Your task to perform on an android device: Open ESPN.com Image 0: 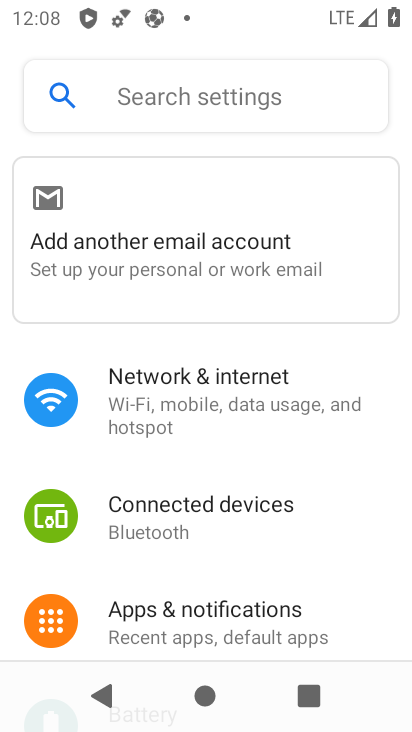
Step 0: press home button
Your task to perform on an android device: Open ESPN.com Image 1: 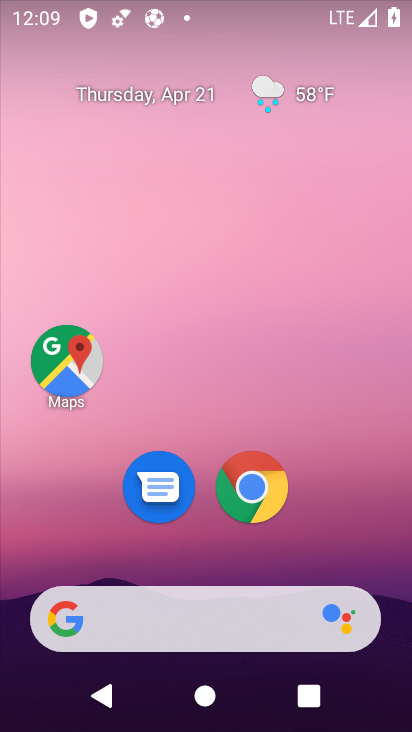
Step 1: click (261, 493)
Your task to perform on an android device: Open ESPN.com Image 2: 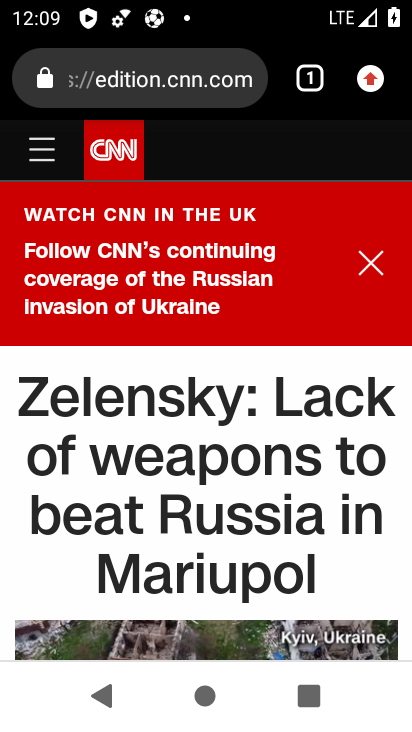
Step 2: click (206, 82)
Your task to perform on an android device: Open ESPN.com Image 3: 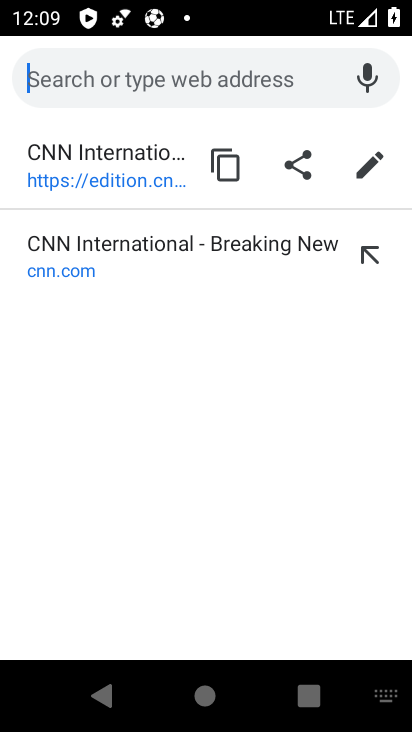
Step 3: type "espn.com"
Your task to perform on an android device: Open ESPN.com Image 4: 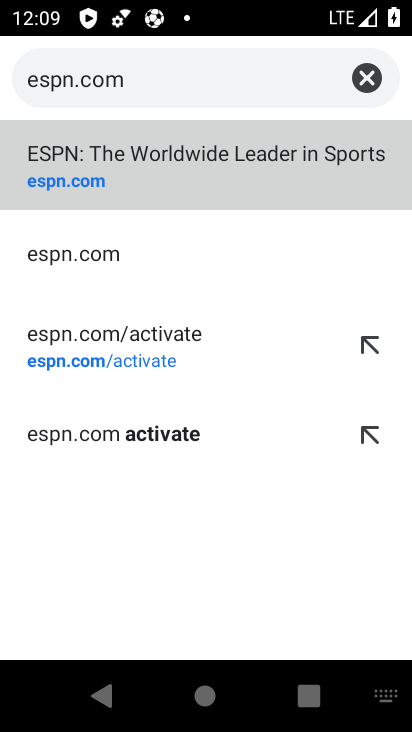
Step 4: click (72, 260)
Your task to perform on an android device: Open ESPN.com Image 5: 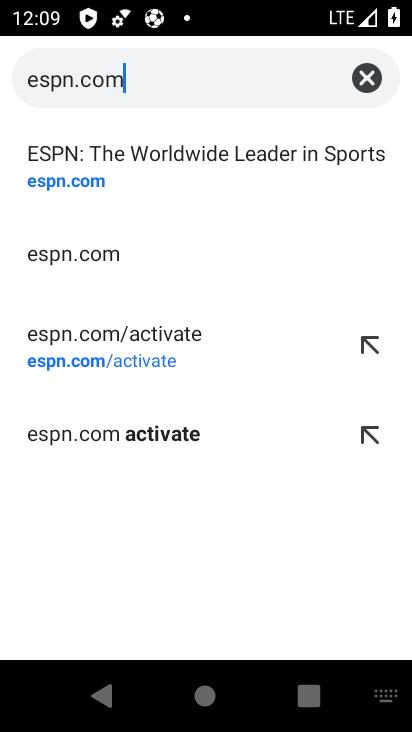
Step 5: click (50, 267)
Your task to perform on an android device: Open ESPN.com Image 6: 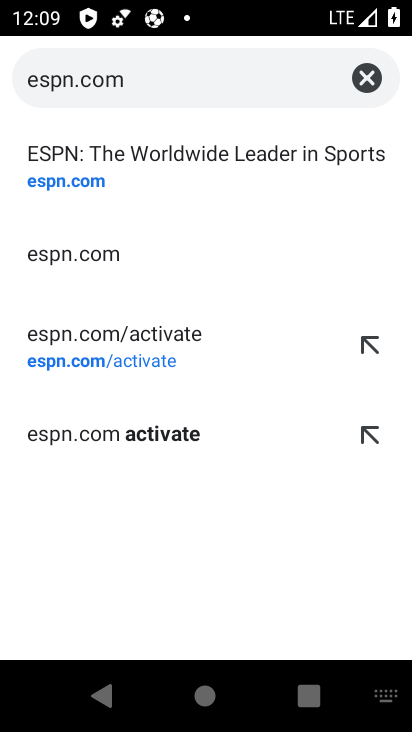
Step 6: click (68, 255)
Your task to perform on an android device: Open ESPN.com Image 7: 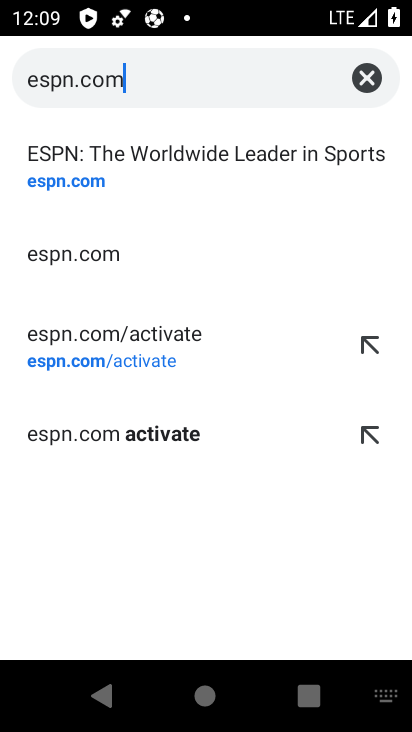
Step 7: click (64, 182)
Your task to perform on an android device: Open ESPN.com Image 8: 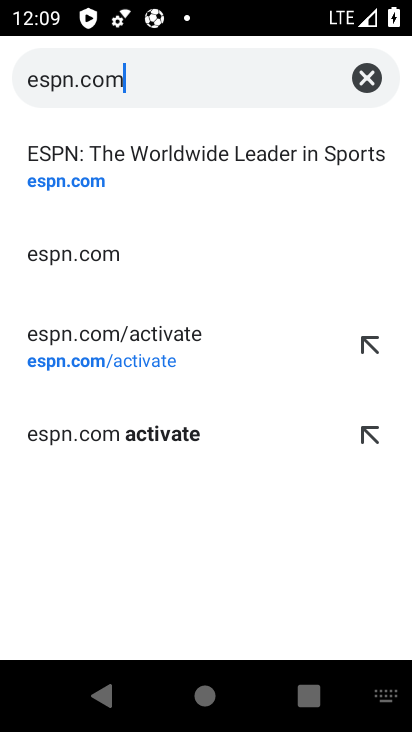
Step 8: click (142, 83)
Your task to perform on an android device: Open ESPN.com Image 9: 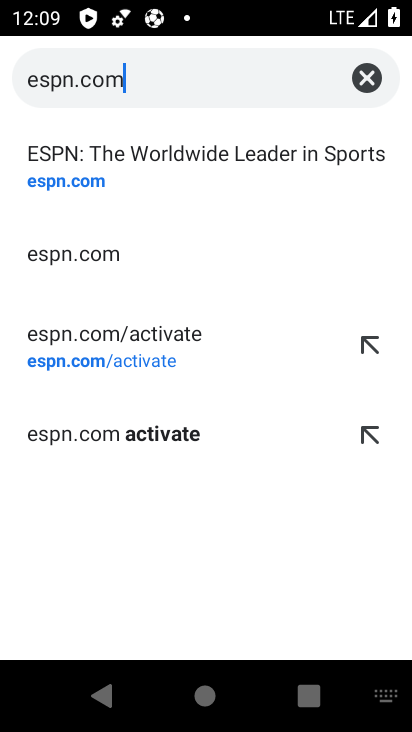
Step 9: click (85, 253)
Your task to perform on an android device: Open ESPN.com Image 10: 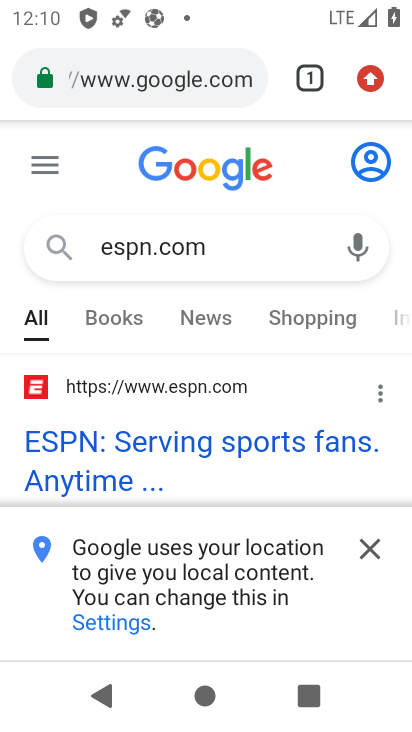
Step 10: click (44, 400)
Your task to perform on an android device: Open ESPN.com Image 11: 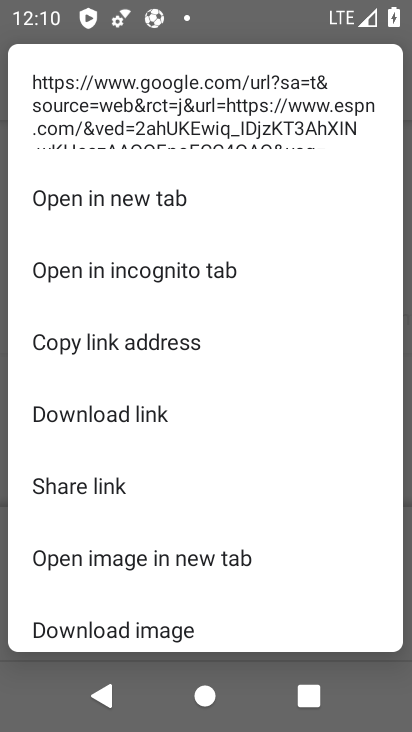
Step 11: press back button
Your task to perform on an android device: Open ESPN.com Image 12: 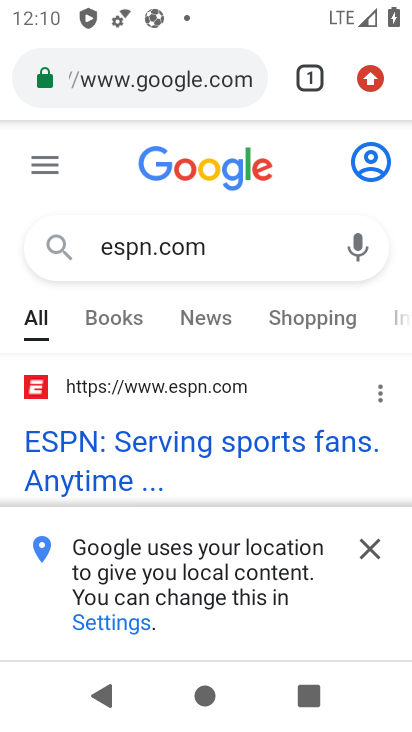
Step 12: click (76, 390)
Your task to perform on an android device: Open ESPN.com Image 13: 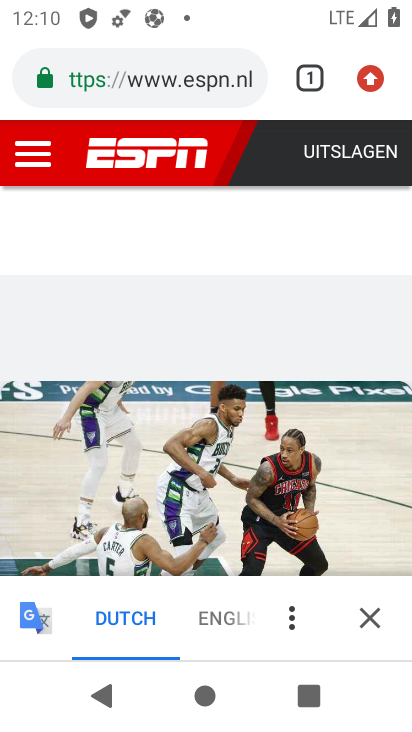
Step 13: task complete